Your task to perform on an android device: open app "Google News" Image 0: 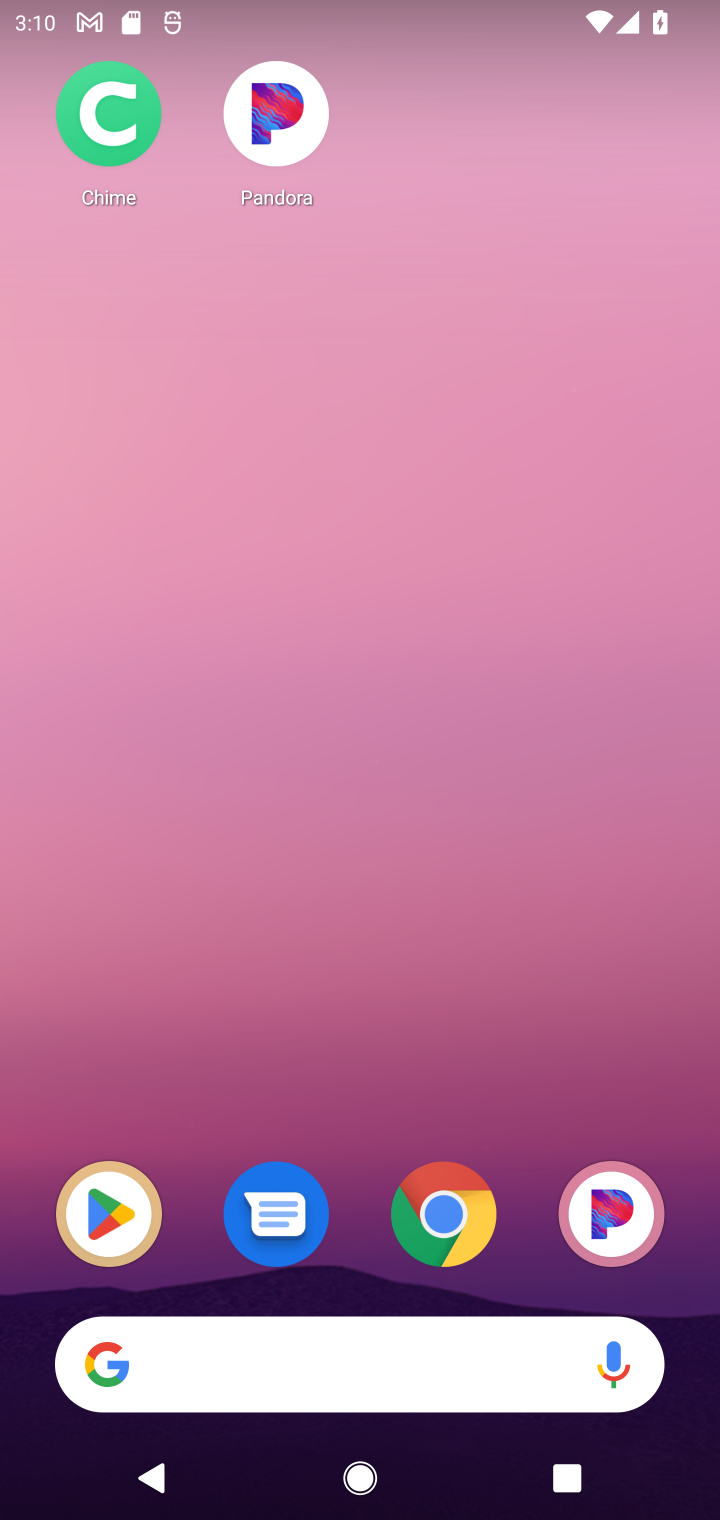
Step 0: click (94, 1199)
Your task to perform on an android device: open app "Google News" Image 1: 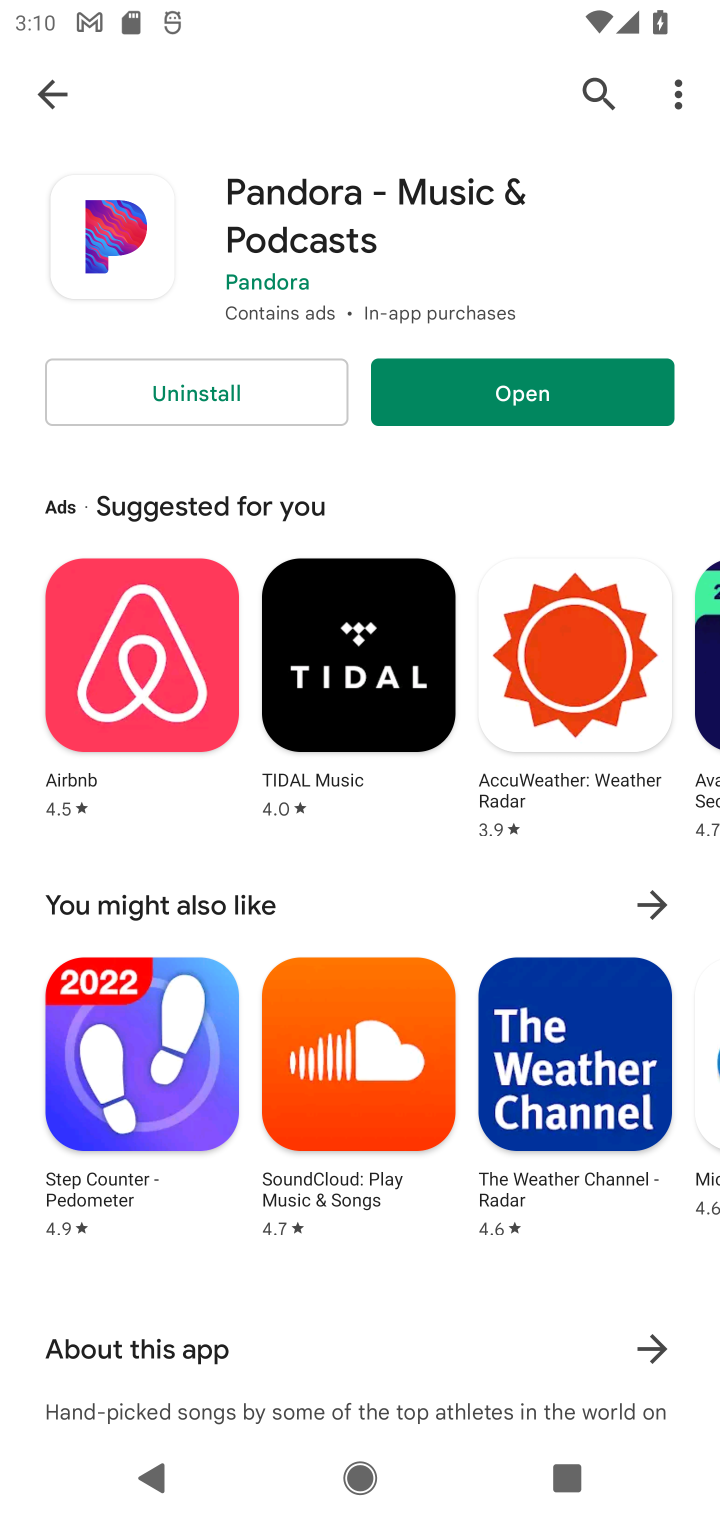
Step 1: click (601, 87)
Your task to perform on an android device: open app "Google News" Image 2: 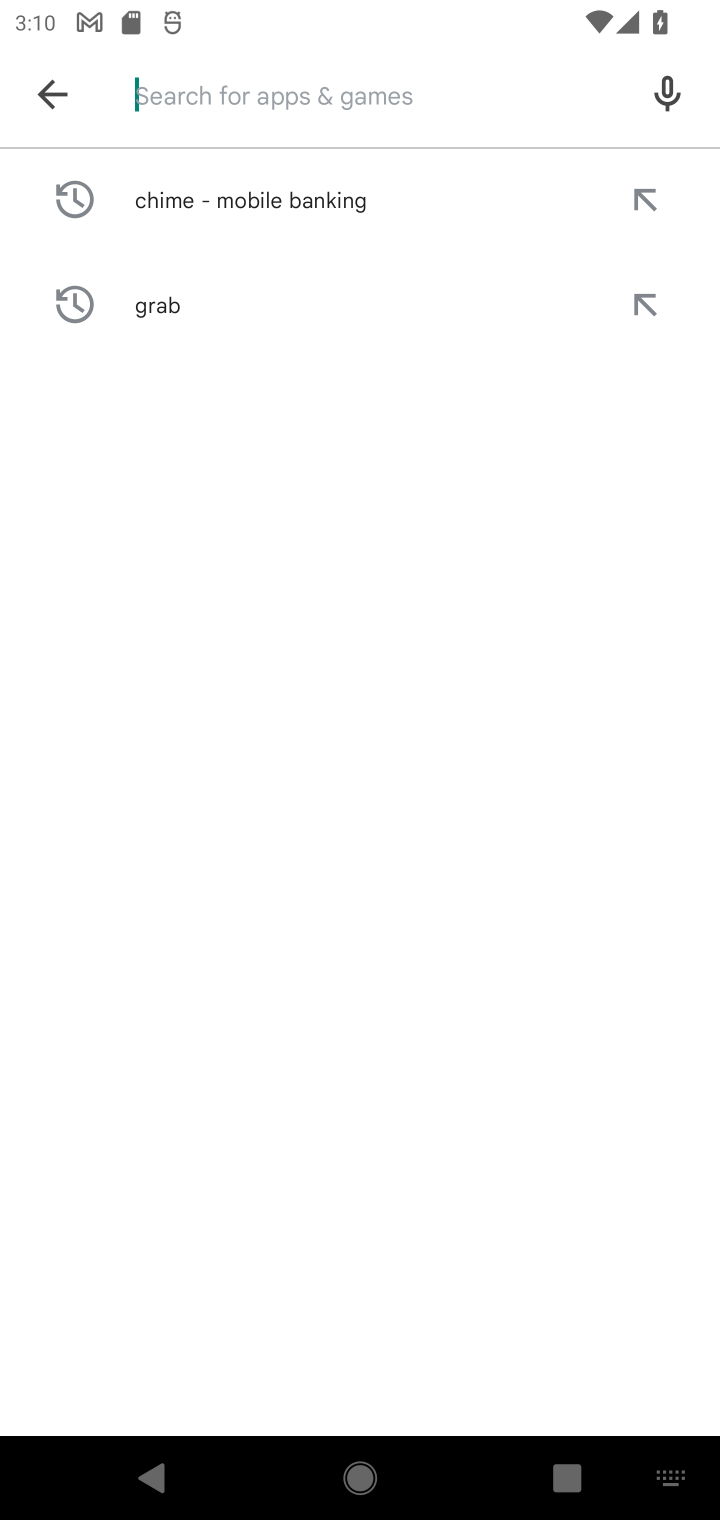
Step 2: type "Google News"
Your task to perform on an android device: open app "Google News" Image 3: 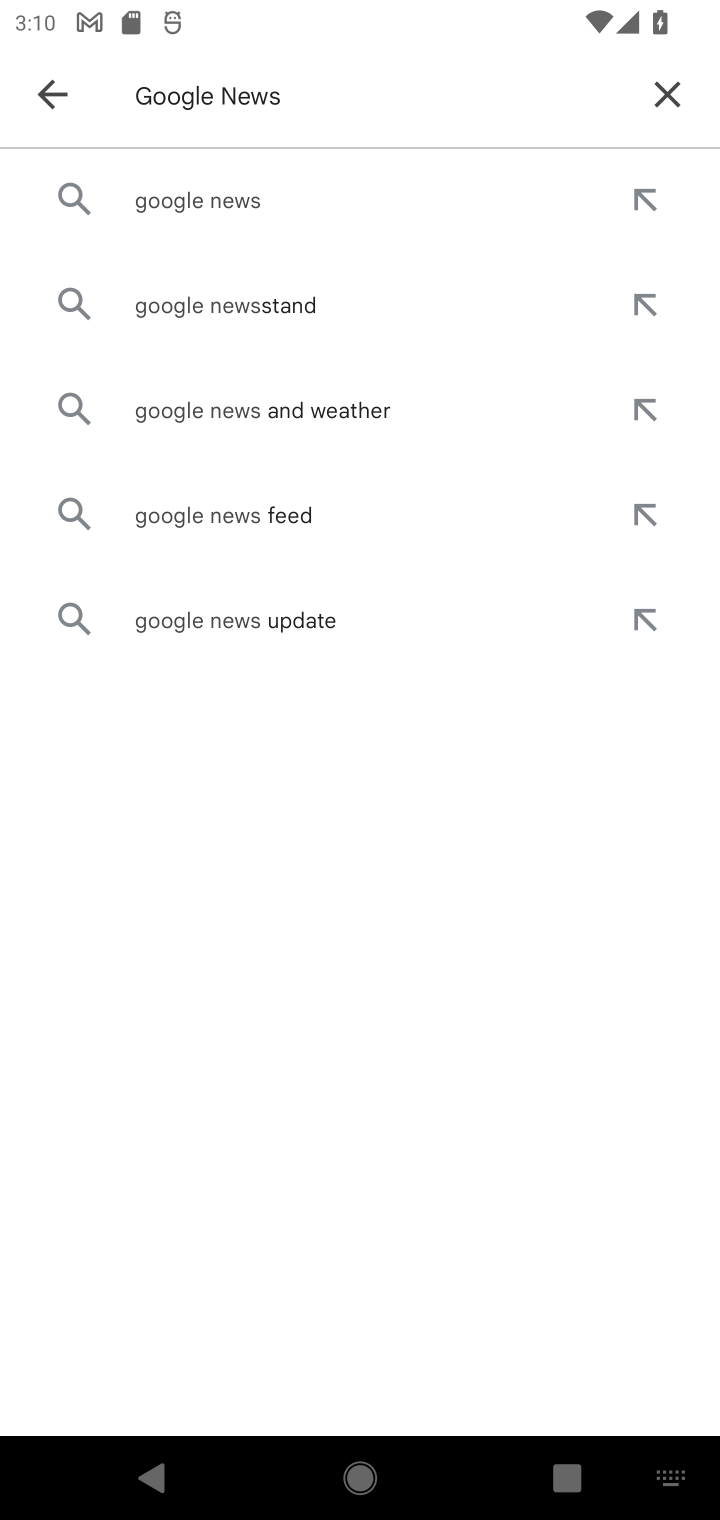
Step 3: click (255, 216)
Your task to perform on an android device: open app "Google News" Image 4: 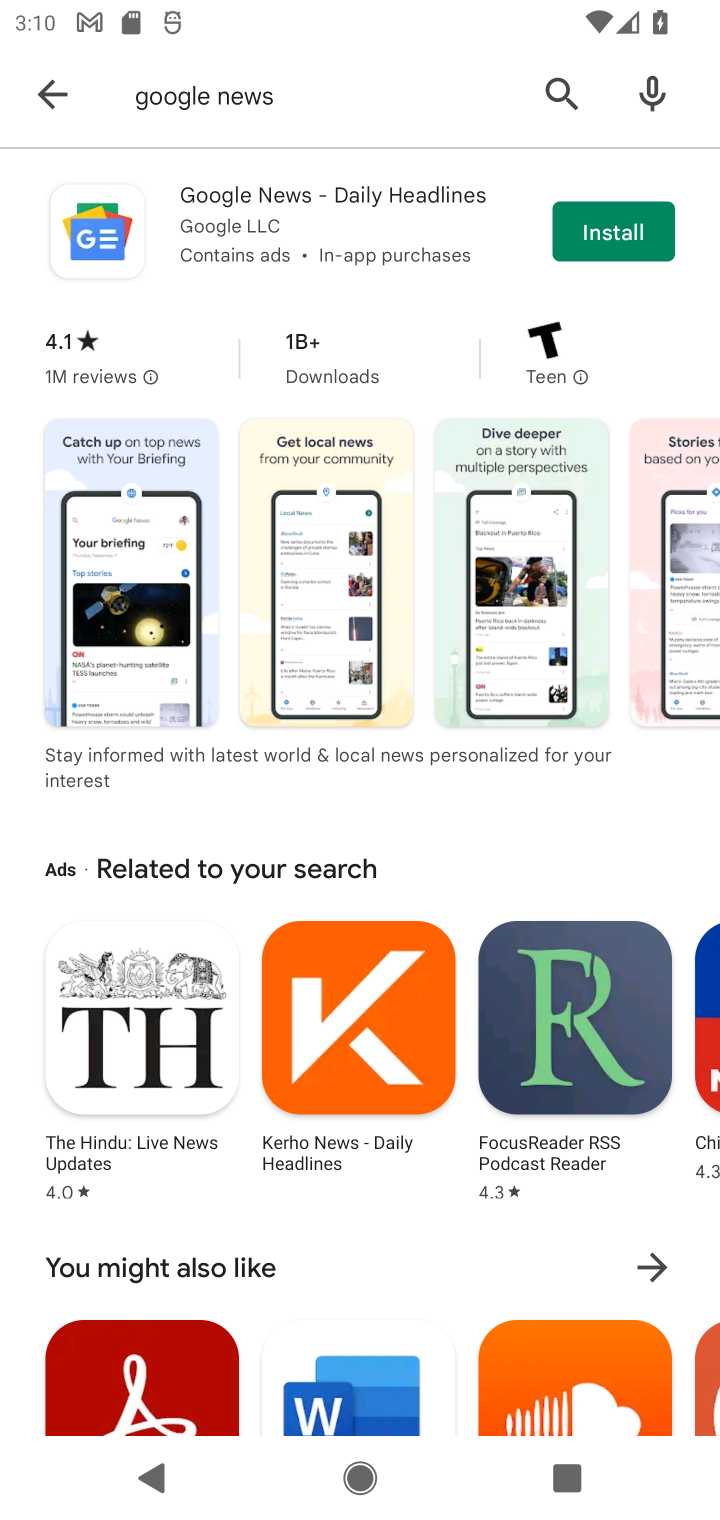
Step 4: task complete